Your task to perform on an android device: turn off smart reply in the gmail app Image 0: 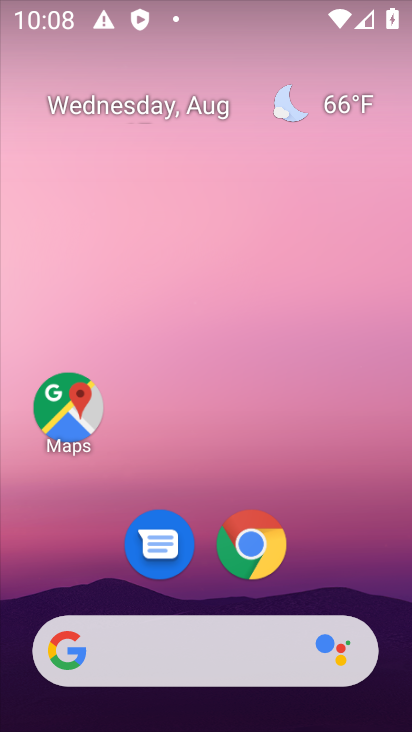
Step 0: drag from (203, 448) to (214, 7)
Your task to perform on an android device: turn off smart reply in the gmail app Image 1: 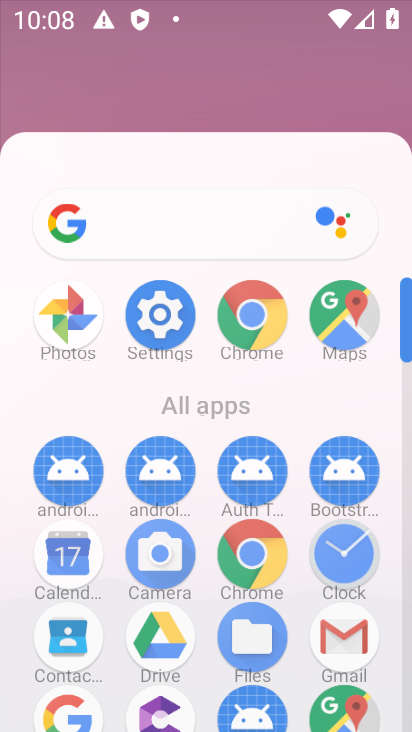
Step 1: task complete